Your task to perform on an android device: open app "Spotify" (install if not already installed) and enter user name: "infallible@icloud.com" and password: "implored" Image 0: 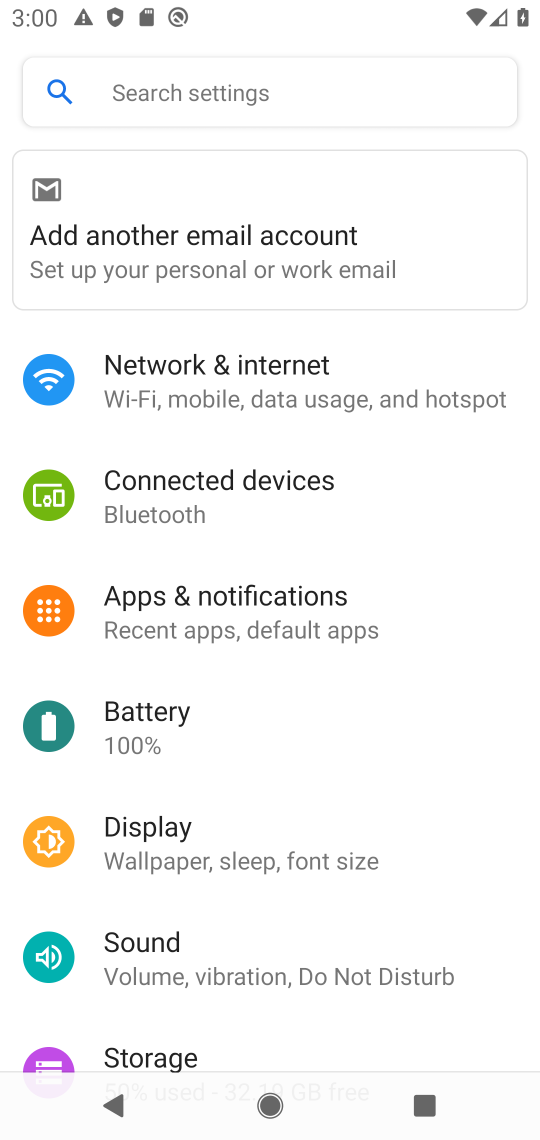
Step 0: press home button
Your task to perform on an android device: open app "Spotify" (install if not already installed) and enter user name: "infallible@icloud.com" and password: "implored" Image 1: 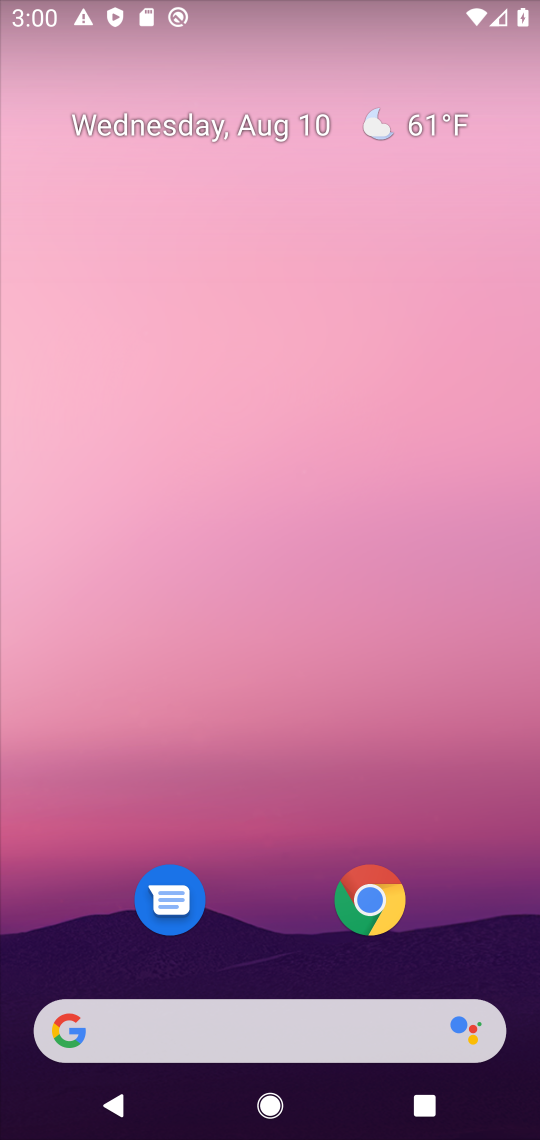
Step 1: drag from (310, 980) to (333, 192)
Your task to perform on an android device: open app "Spotify" (install if not already installed) and enter user name: "infallible@icloud.com" and password: "implored" Image 2: 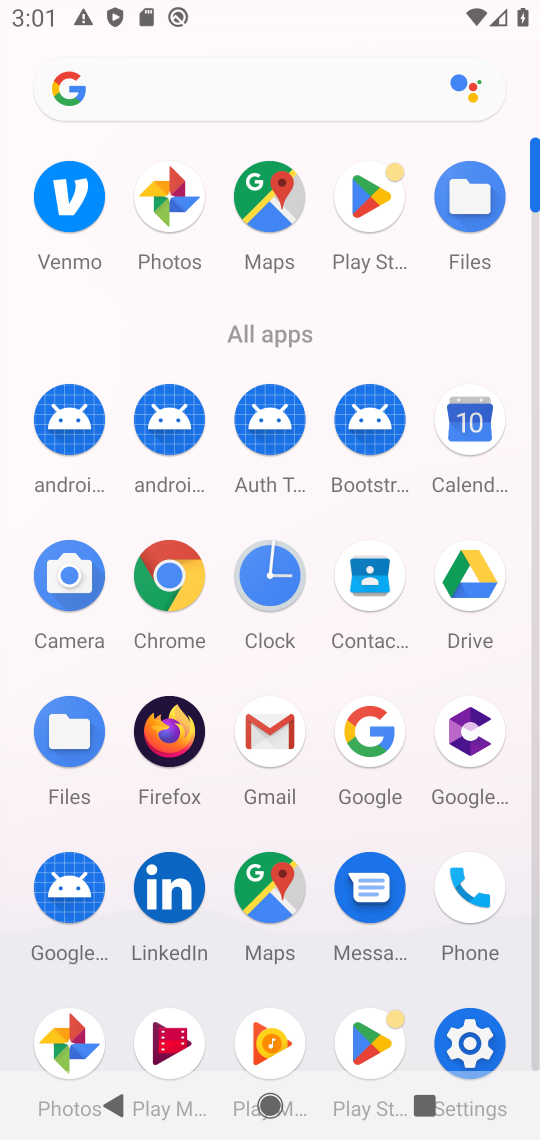
Step 2: click (357, 1051)
Your task to perform on an android device: open app "Spotify" (install if not already installed) and enter user name: "infallible@icloud.com" and password: "implored" Image 3: 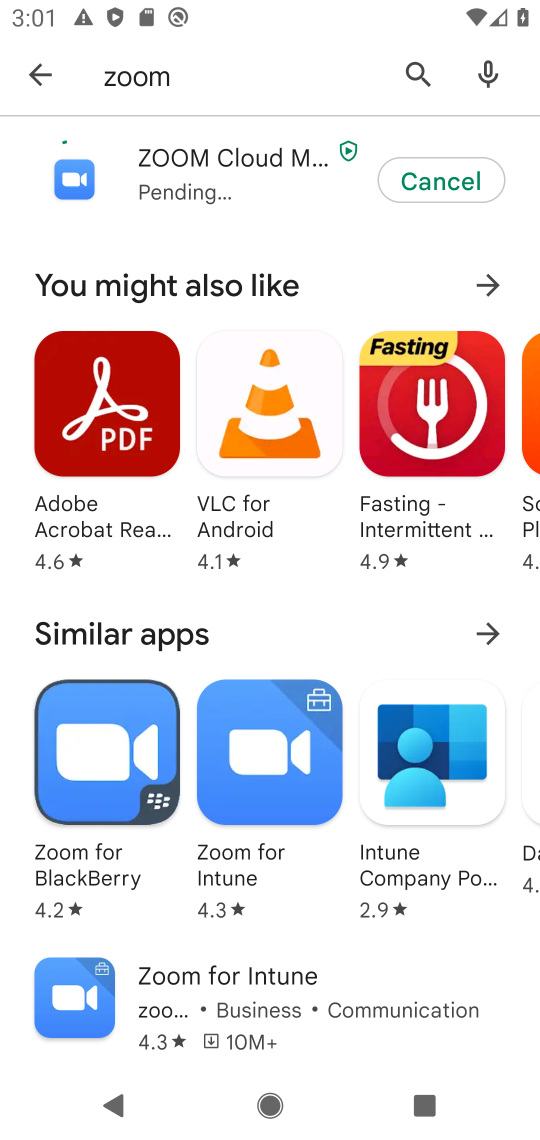
Step 3: click (408, 98)
Your task to perform on an android device: open app "Spotify" (install if not already installed) and enter user name: "infallible@icloud.com" and password: "implored" Image 4: 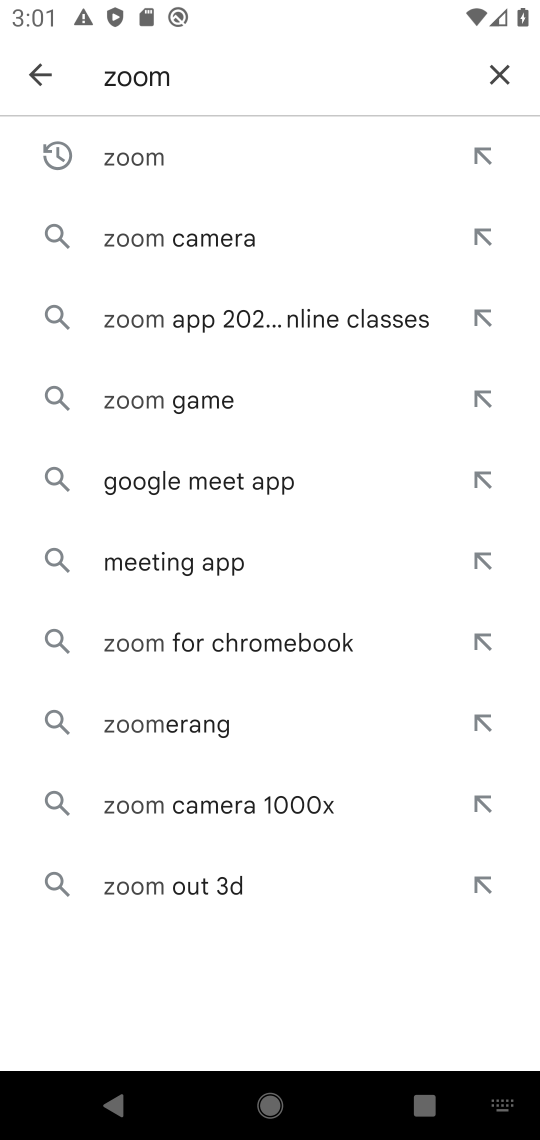
Step 4: click (499, 63)
Your task to perform on an android device: open app "Spotify" (install if not already installed) and enter user name: "infallible@icloud.com" and password: "implored" Image 5: 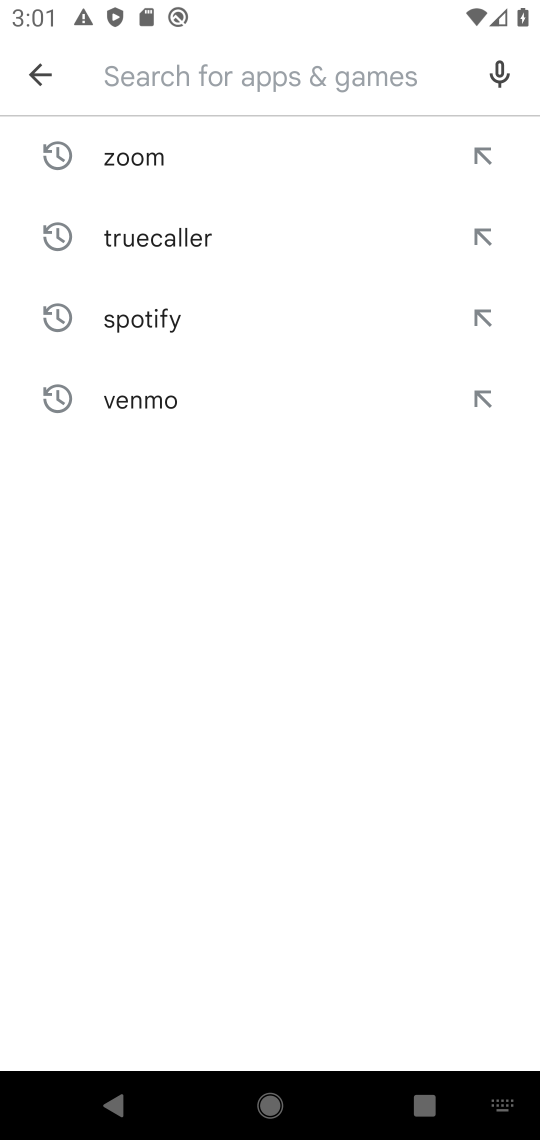
Step 5: type "spotifty"
Your task to perform on an android device: open app "Spotify" (install if not already installed) and enter user name: "infallible@icloud.com" and password: "implored" Image 6: 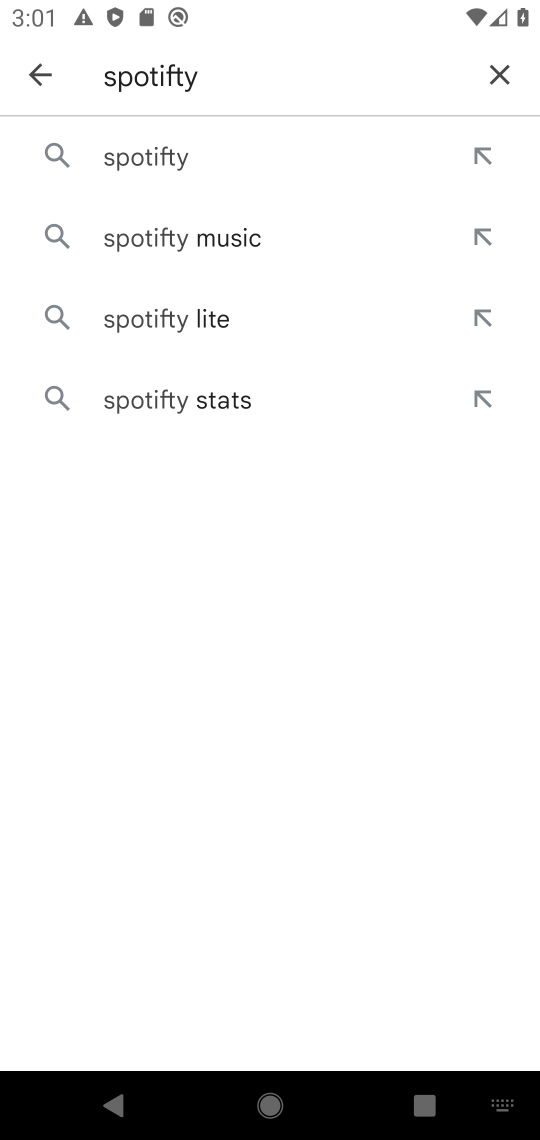
Step 6: click (218, 173)
Your task to perform on an android device: open app "Spotify" (install if not already installed) and enter user name: "infallible@icloud.com" and password: "implored" Image 7: 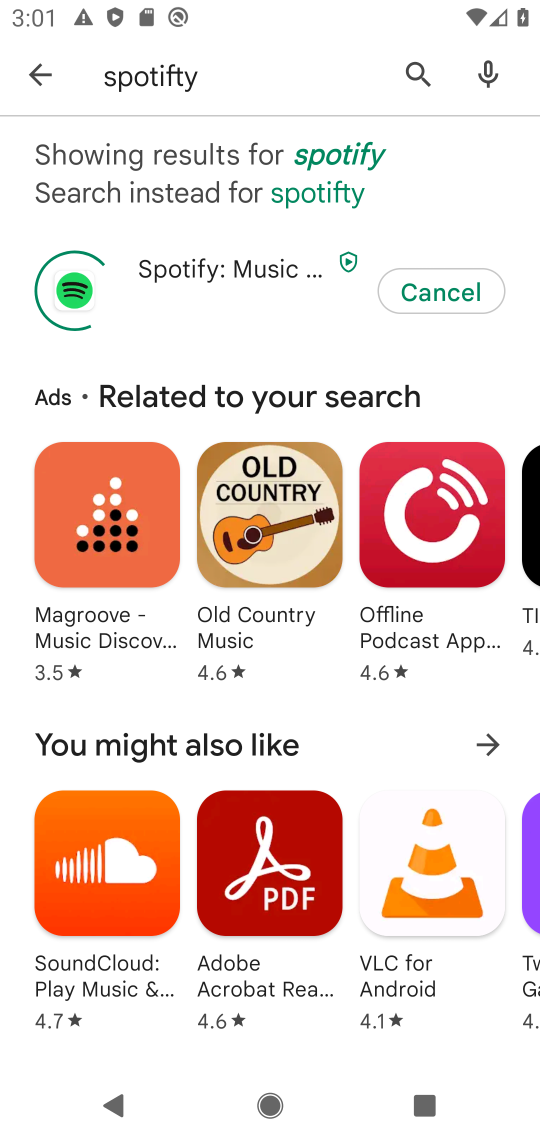
Step 7: task complete